Your task to perform on an android device: Open location settings Image 0: 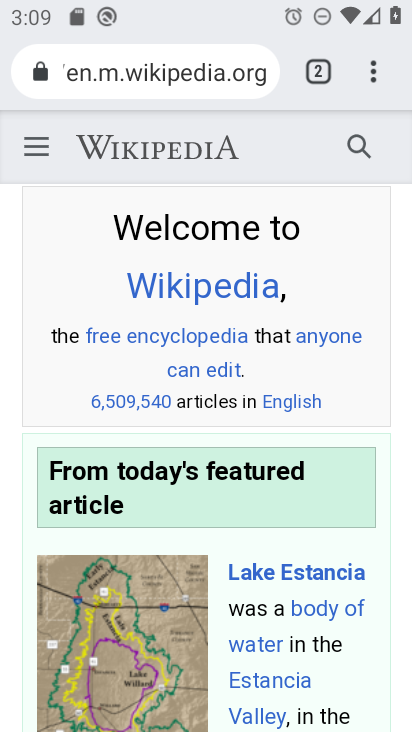
Step 0: press home button
Your task to perform on an android device: Open location settings Image 1: 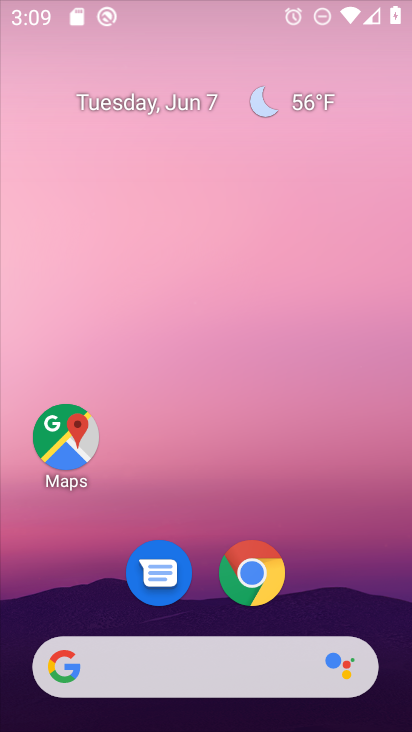
Step 1: drag from (329, 526) to (335, 11)
Your task to perform on an android device: Open location settings Image 2: 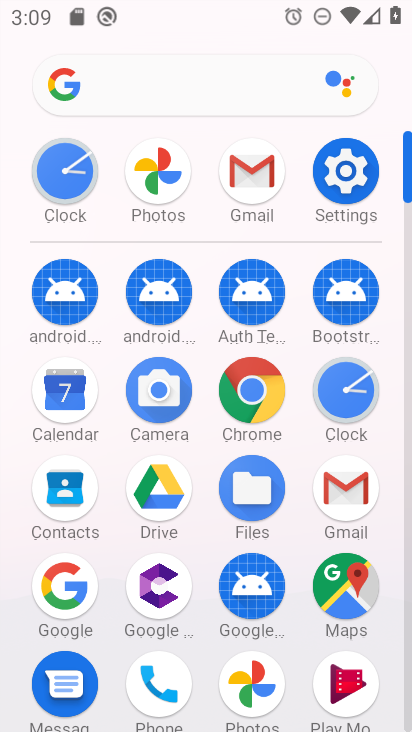
Step 2: click (341, 176)
Your task to perform on an android device: Open location settings Image 3: 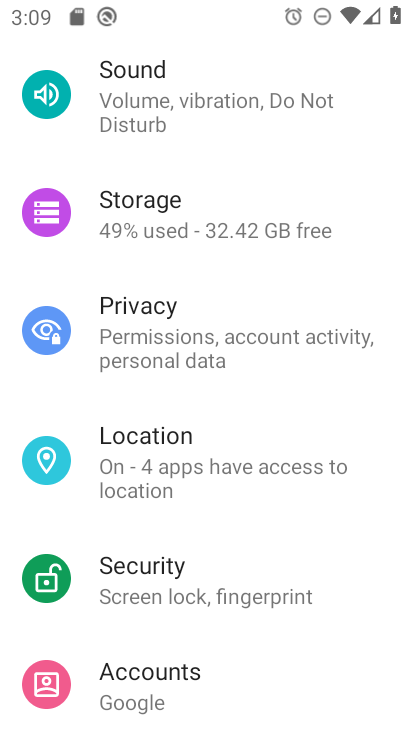
Step 3: click (163, 488)
Your task to perform on an android device: Open location settings Image 4: 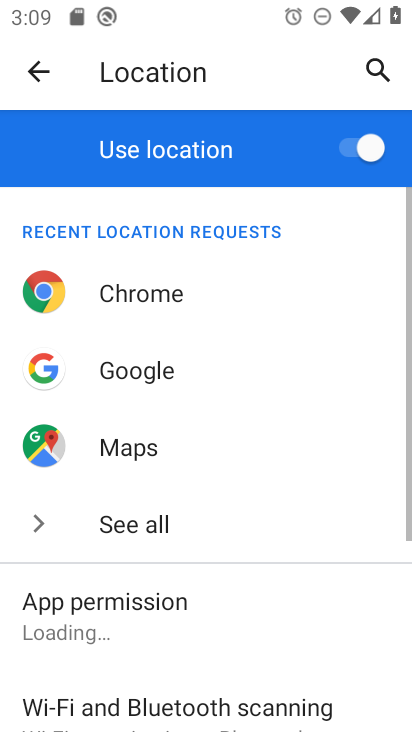
Step 4: task complete